Your task to perform on an android device: Show me popular games on the Play Store Image 0: 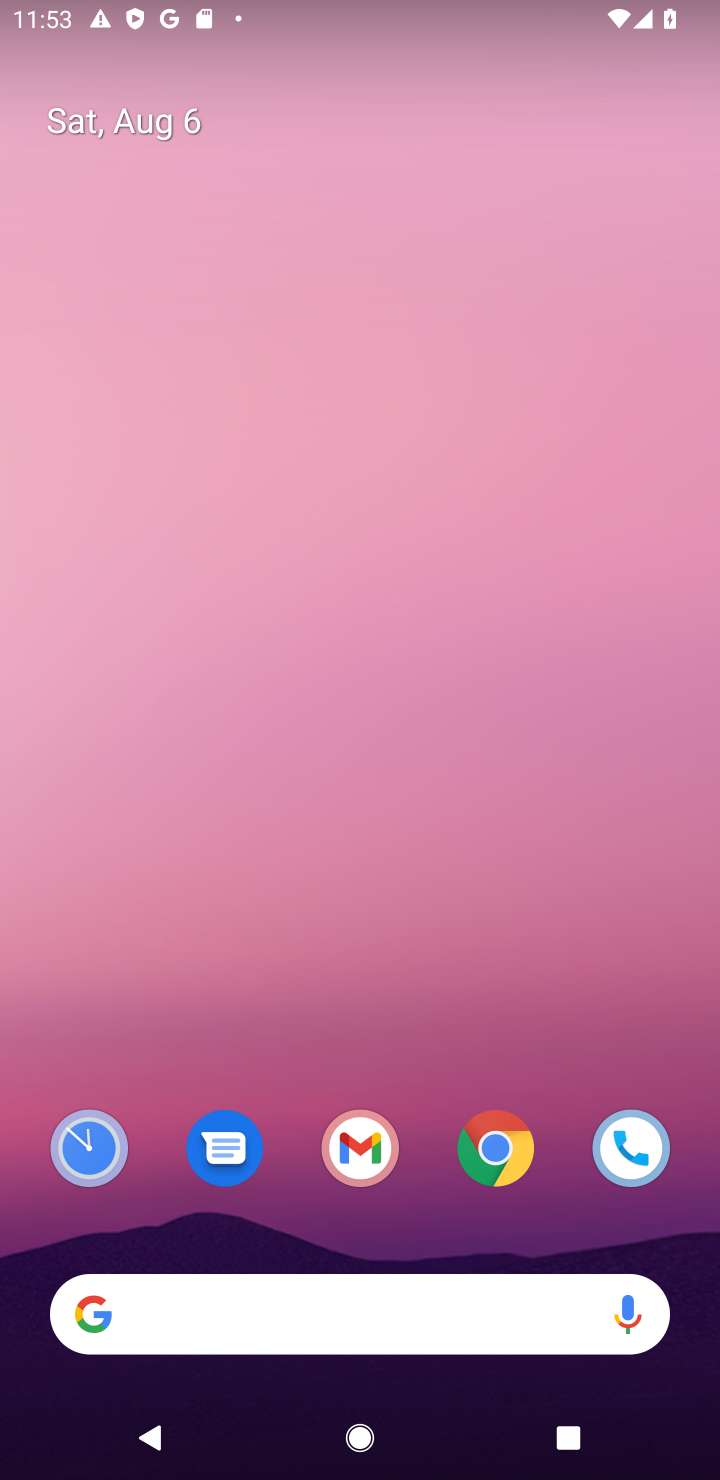
Step 0: drag from (290, 1007) to (334, 18)
Your task to perform on an android device: Show me popular games on the Play Store Image 1: 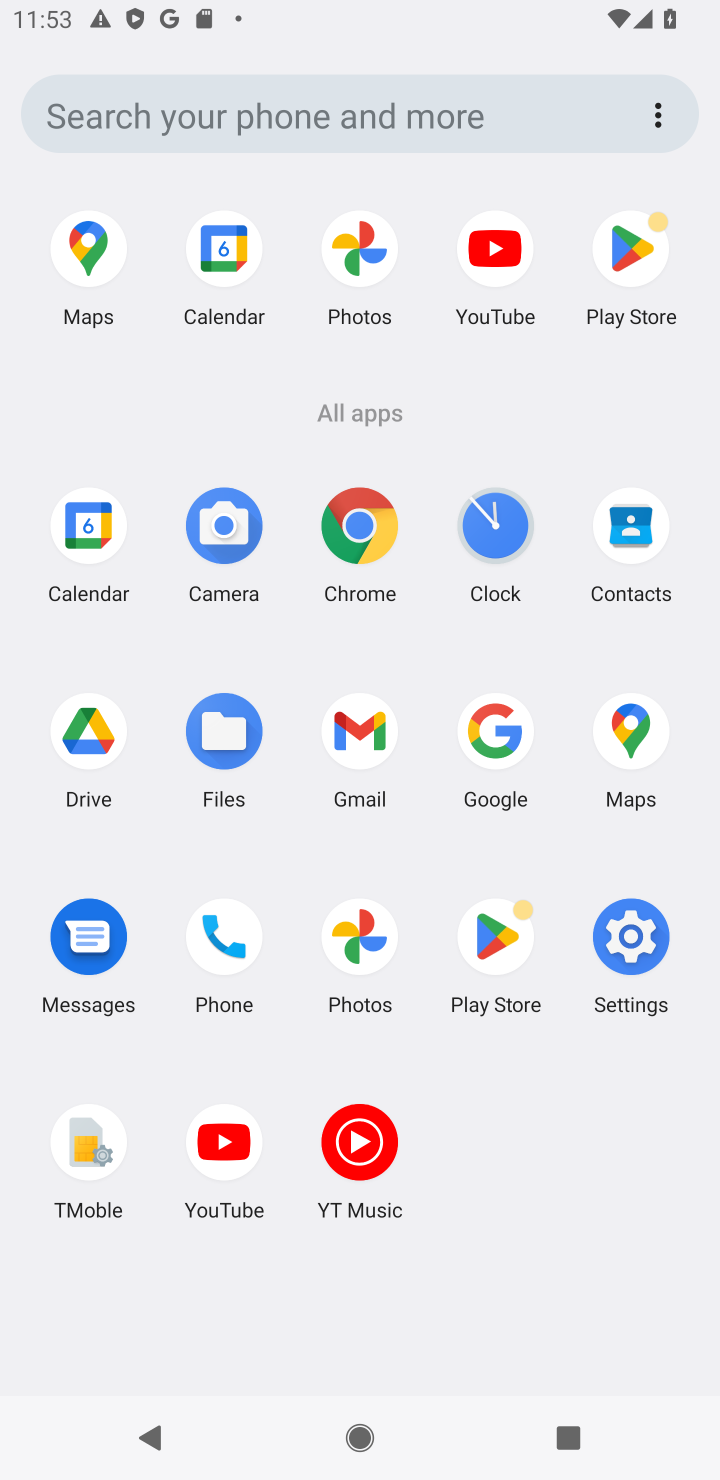
Step 1: click (498, 942)
Your task to perform on an android device: Show me popular games on the Play Store Image 2: 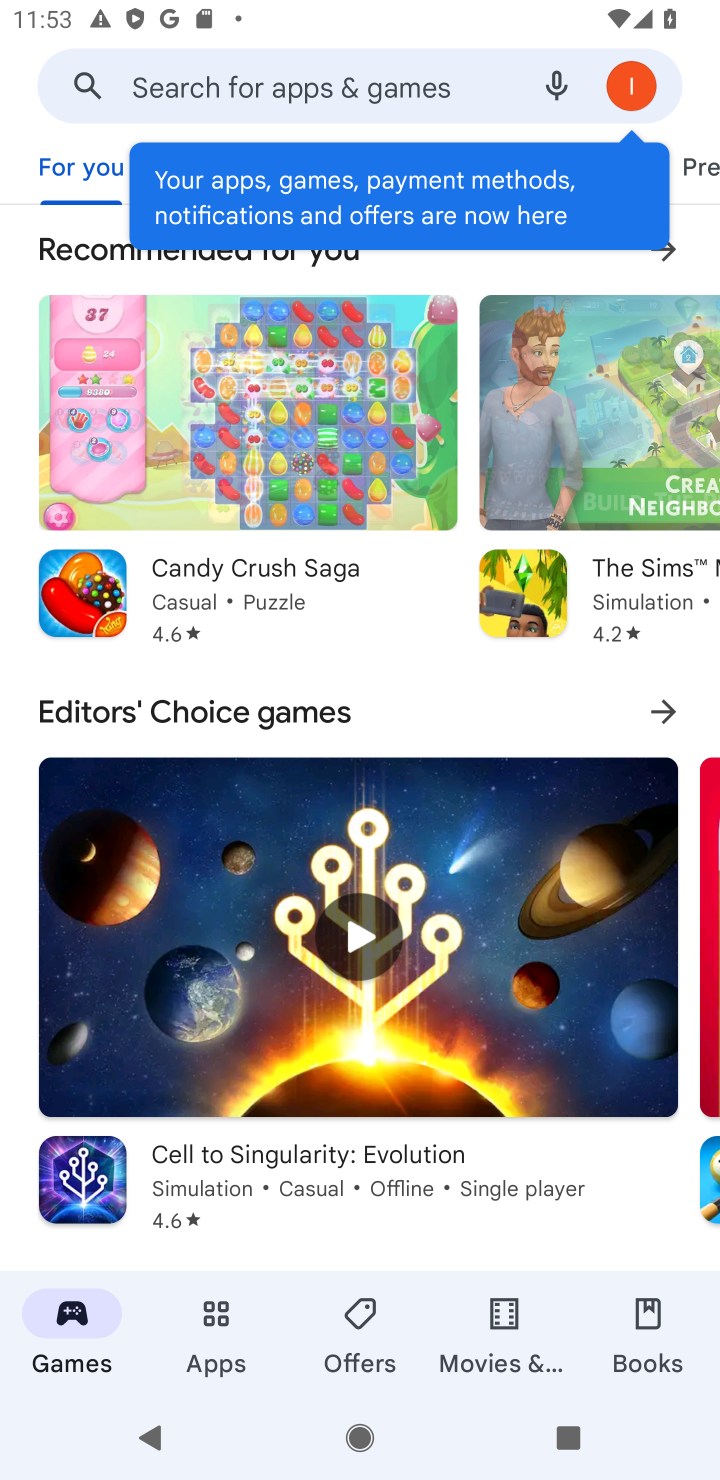
Step 2: task complete